Your task to perform on an android device: Clear the cart on newegg.com. Search for logitech g pro on newegg.com, select the first entry, add it to the cart, then select checkout. Image 0: 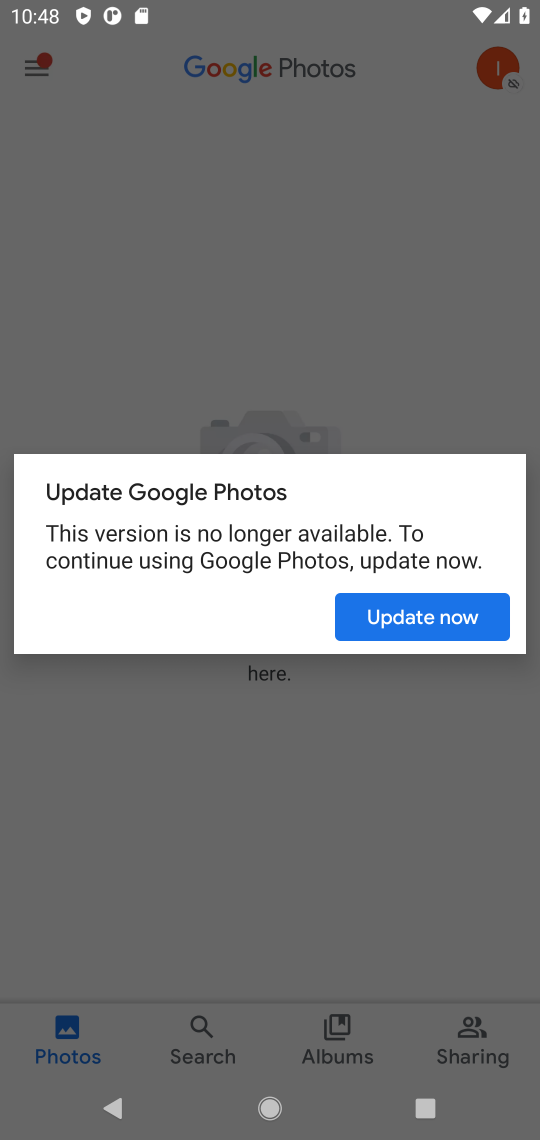
Step 0: press home button
Your task to perform on an android device: Clear the cart on newegg.com. Search for logitech g pro on newegg.com, select the first entry, add it to the cart, then select checkout. Image 1: 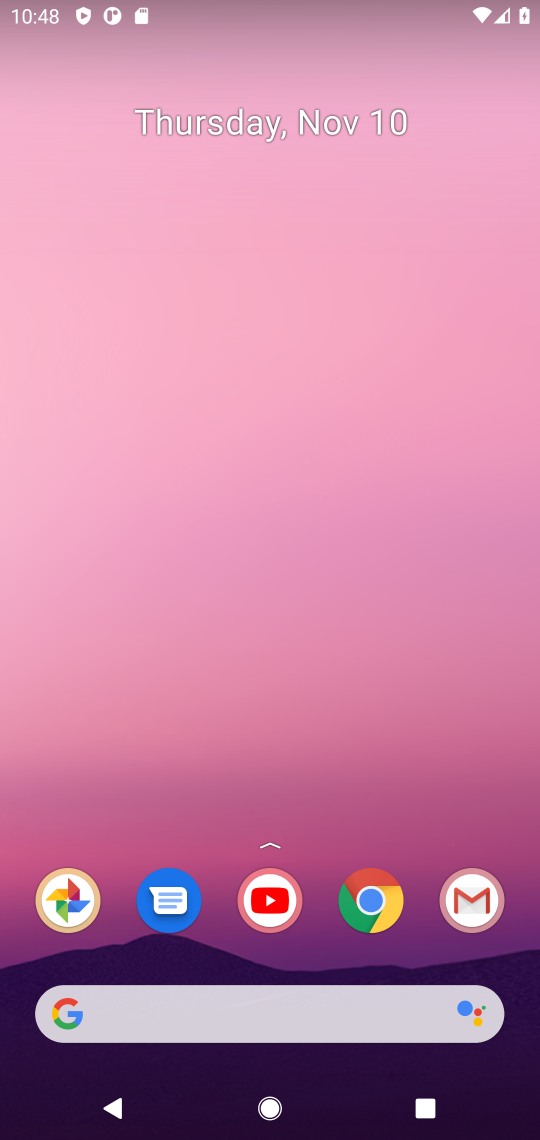
Step 1: click (367, 910)
Your task to perform on an android device: Clear the cart on newegg.com. Search for logitech g pro on newegg.com, select the first entry, add it to the cart, then select checkout. Image 2: 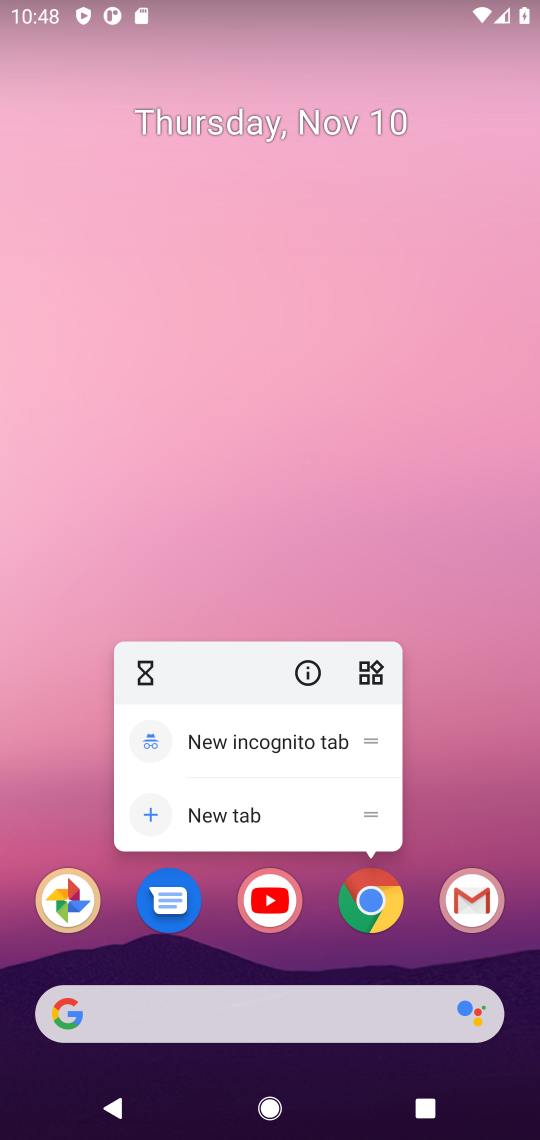
Step 2: click (366, 904)
Your task to perform on an android device: Clear the cart on newegg.com. Search for logitech g pro on newegg.com, select the first entry, add it to the cart, then select checkout. Image 3: 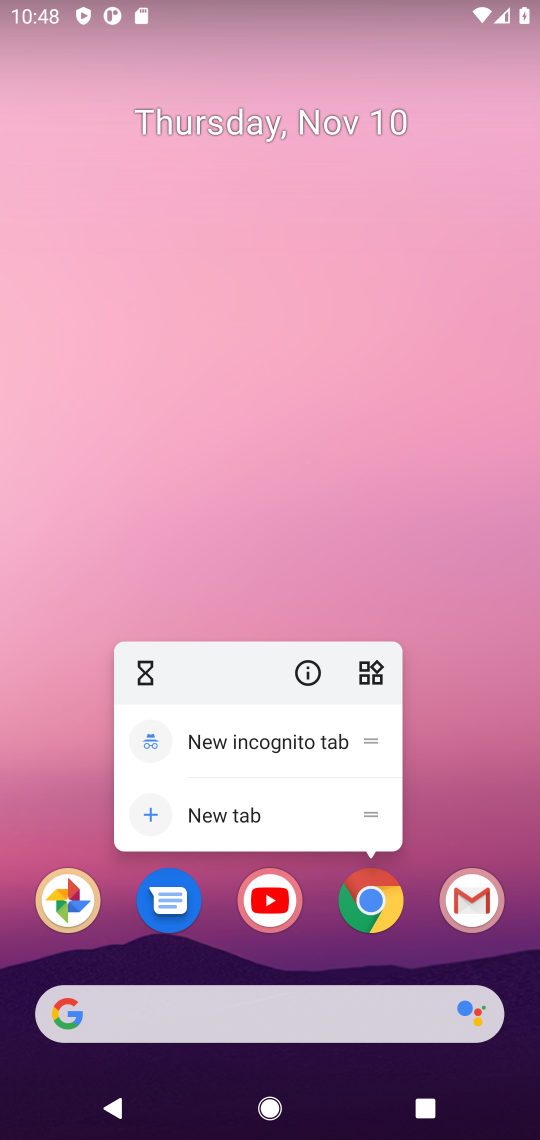
Step 3: click (363, 901)
Your task to perform on an android device: Clear the cart on newegg.com. Search for logitech g pro on newegg.com, select the first entry, add it to the cart, then select checkout. Image 4: 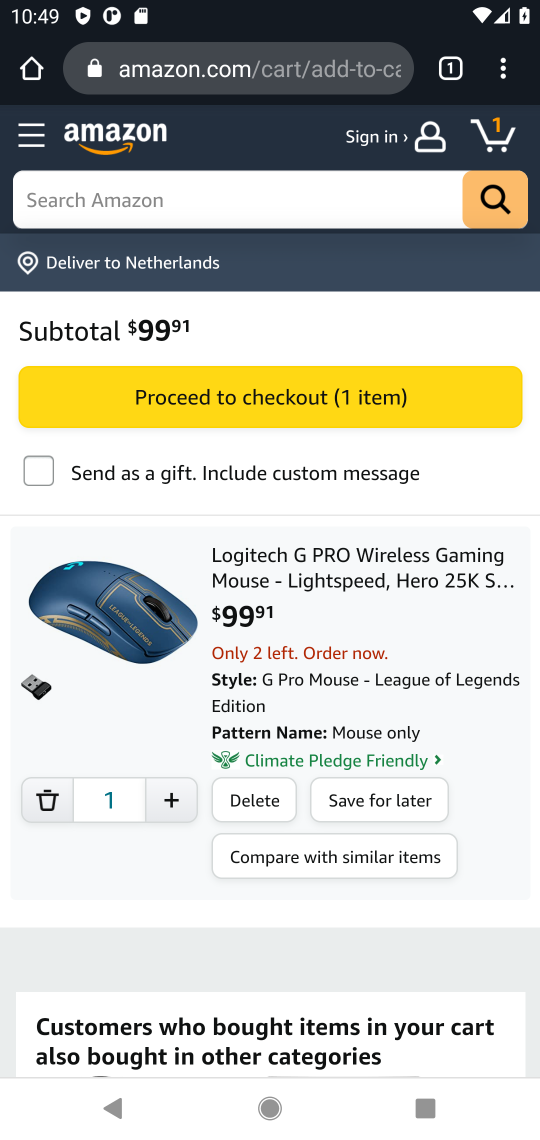
Step 4: click (218, 60)
Your task to perform on an android device: Clear the cart on newegg.com. Search for logitech g pro on newegg.com, select the first entry, add it to the cart, then select checkout. Image 5: 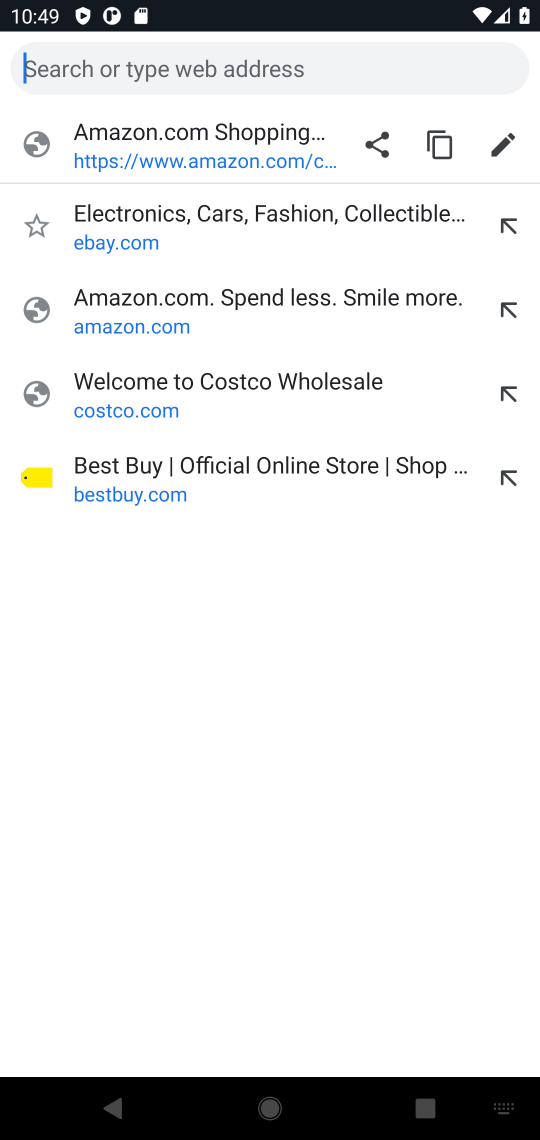
Step 5: type "newegg.com"
Your task to perform on an android device: Clear the cart on newegg.com. Search for logitech g pro on newegg.com, select the first entry, add it to the cart, then select checkout. Image 6: 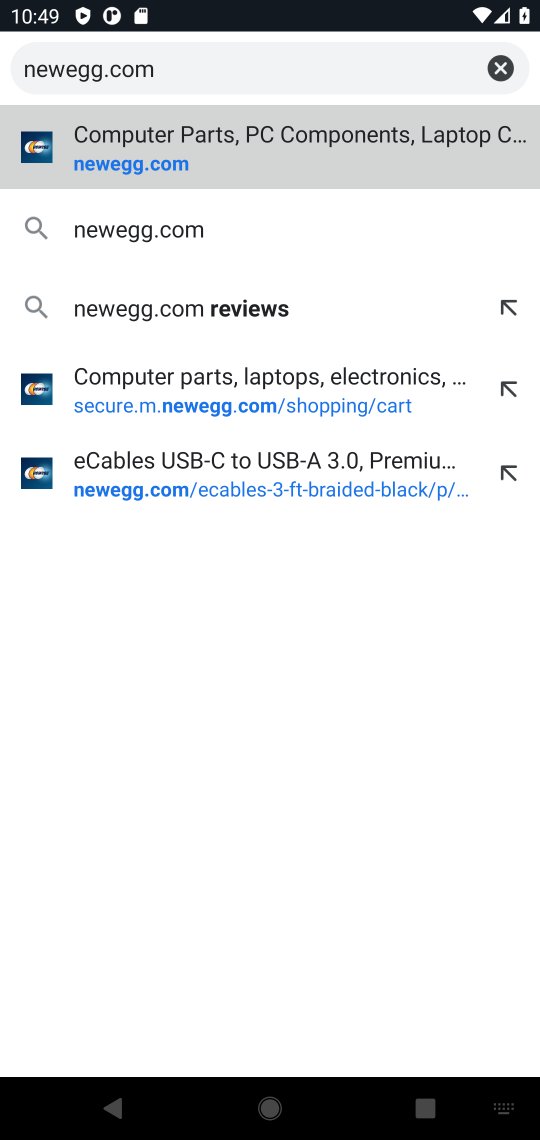
Step 6: press enter
Your task to perform on an android device: Clear the cart on newegg.com. Search for logitech g pro on newegg.com, select the first entry, add it to the cart, then select checkout. Image 7: 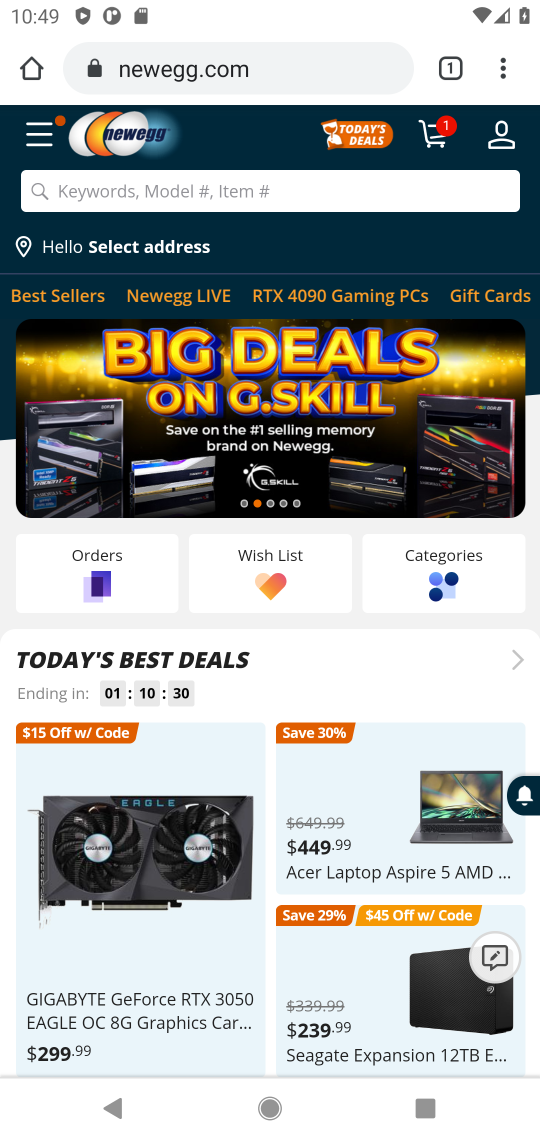
Step 7: click (220, 194)
Your task to perform on an android device: Clear the cart on newegg.com. Search for logitech g pro on newegg.com, select the first entry, add it to the cart, then select checkout. Image 8: 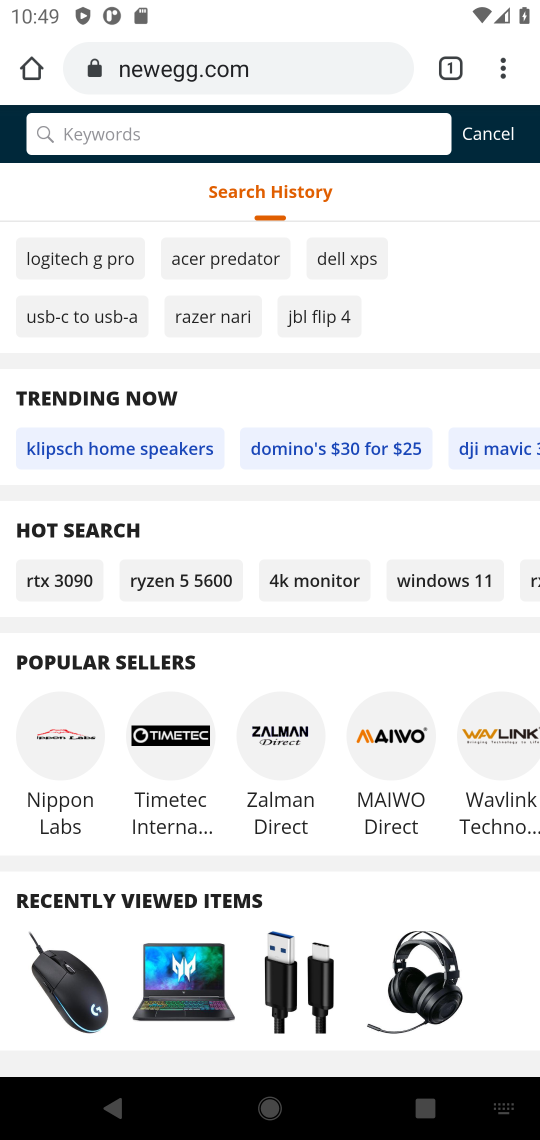
Step 8: click (91, 251)
Your task to perform on an android device: Clear the cart on newegg.com. Search for logitech g pro on newegg.com, select the first entry, add it to the cart, then select checkout. Image 9: 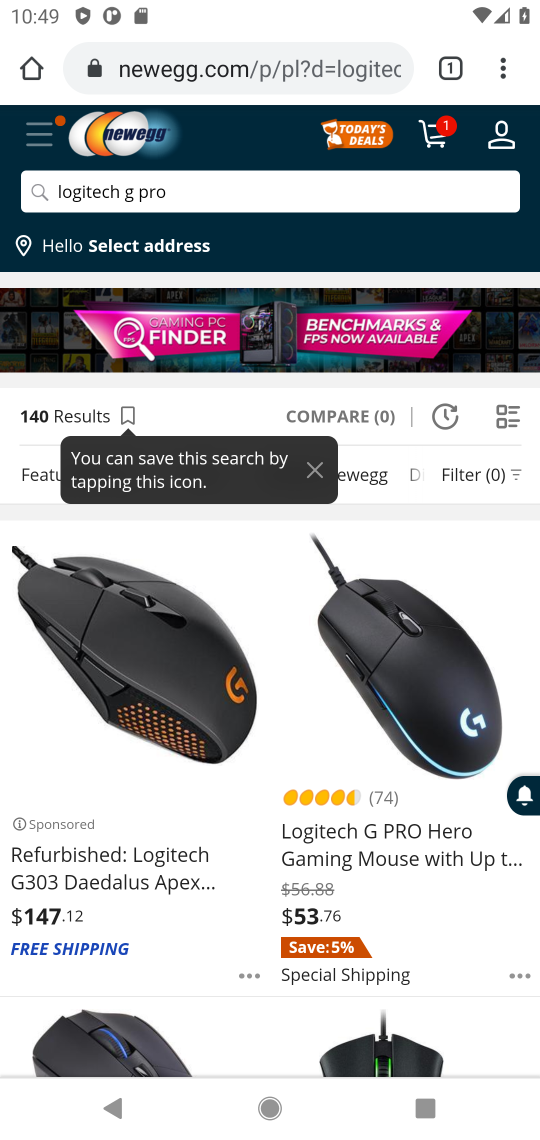
Step 9: click (396, 833)
Your task to perform on an android device: Clear the cart on newegg.com. Search for logitech g pro on newegg.com, select the first entry, add it to the cart, then select checkout. Image 10: 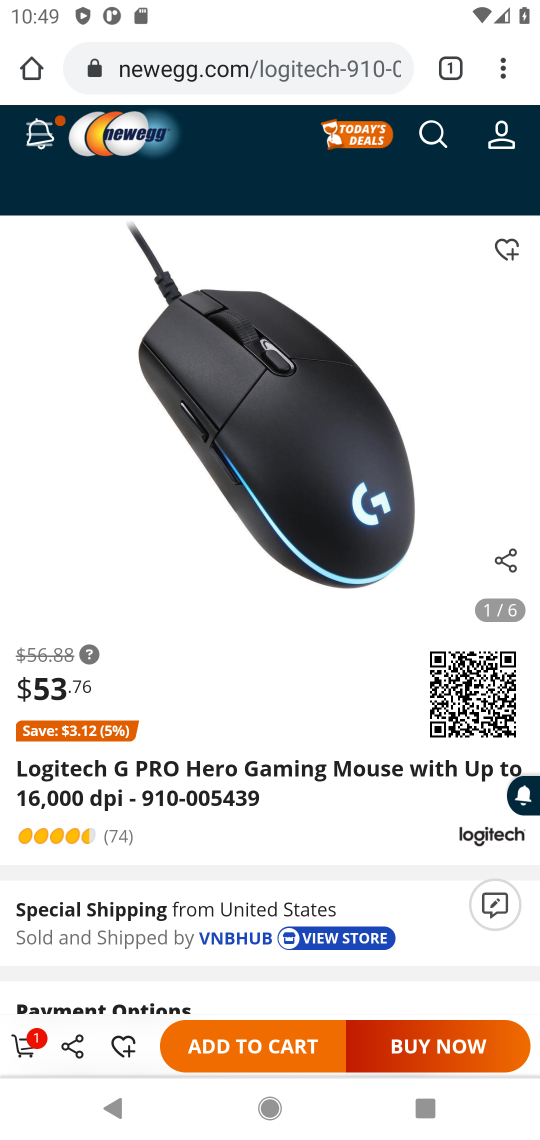
Step 10: task complete